Your task to perform on an android device: turn on translation in the chrome app Image 0: 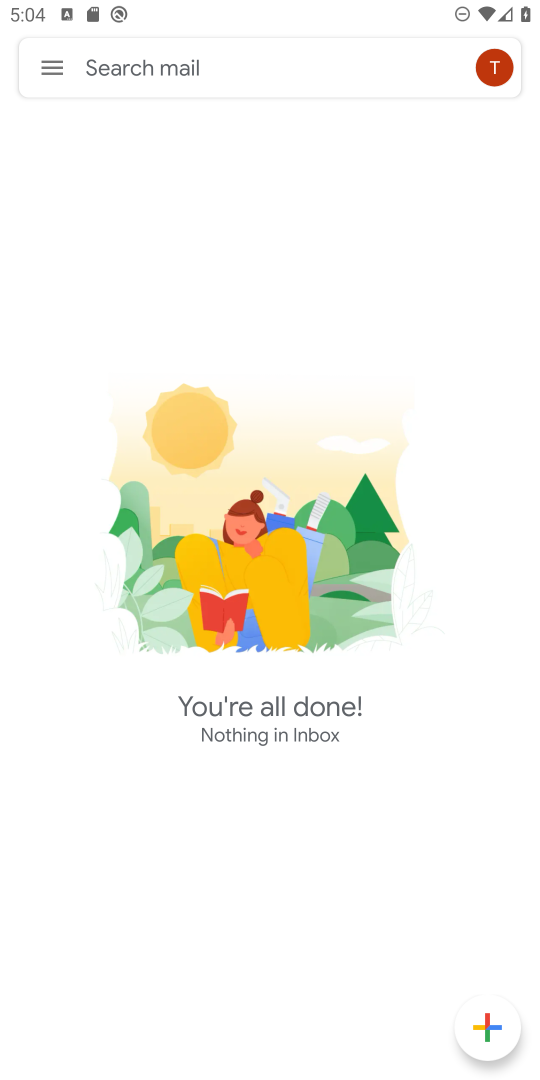
Step 0: press home button
Your task to perform on an android device: turn on translation in the chrome app Image 1: 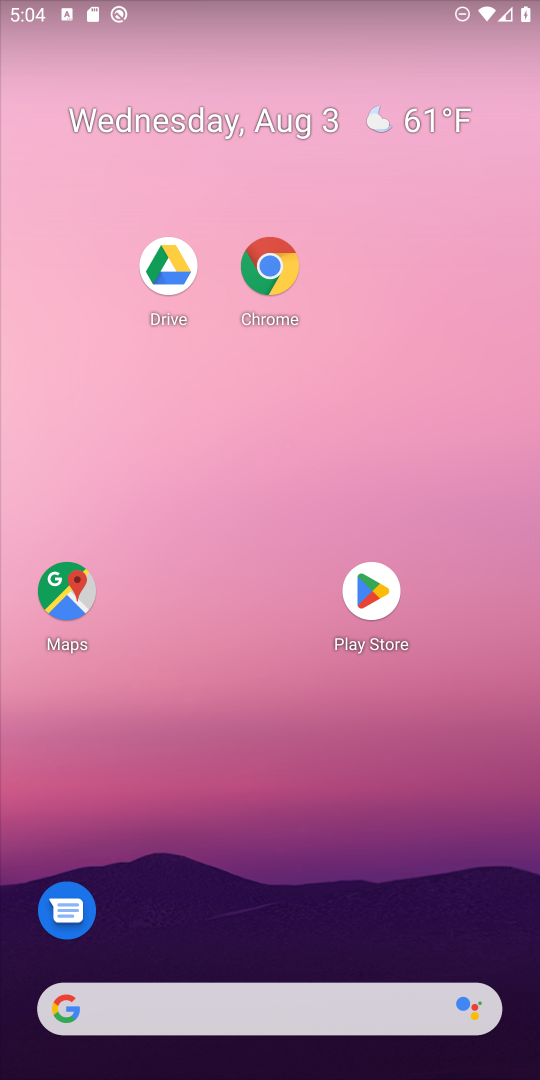
Step 1: drag from (348, 994) to (314, 52)
Your task to perform on an android device: turn on translation in the chrome app Image 2: 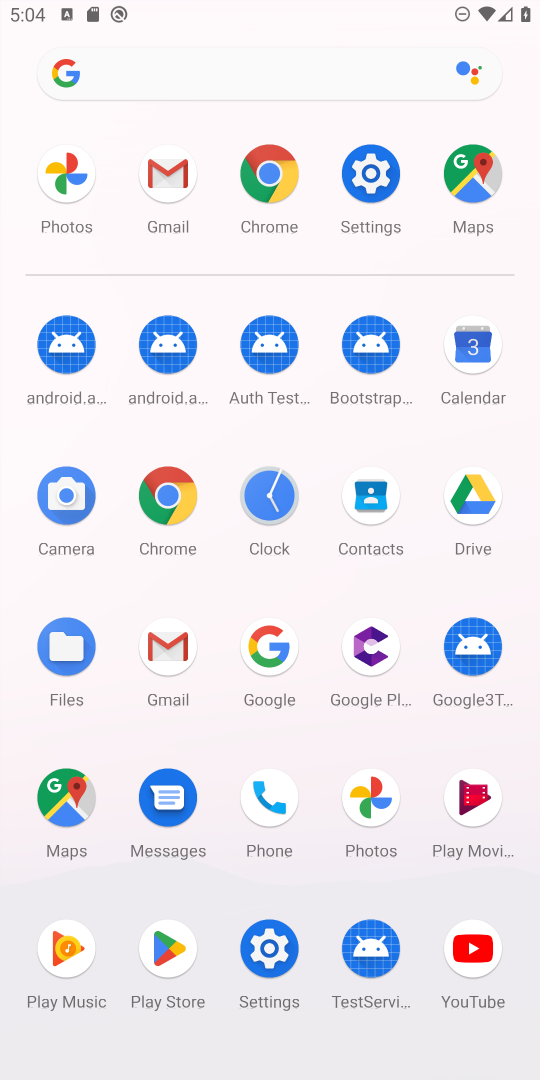
Step 2: click (170, 490)
Your task to perform on an android device: turn on translation in the chrome app Image 3: 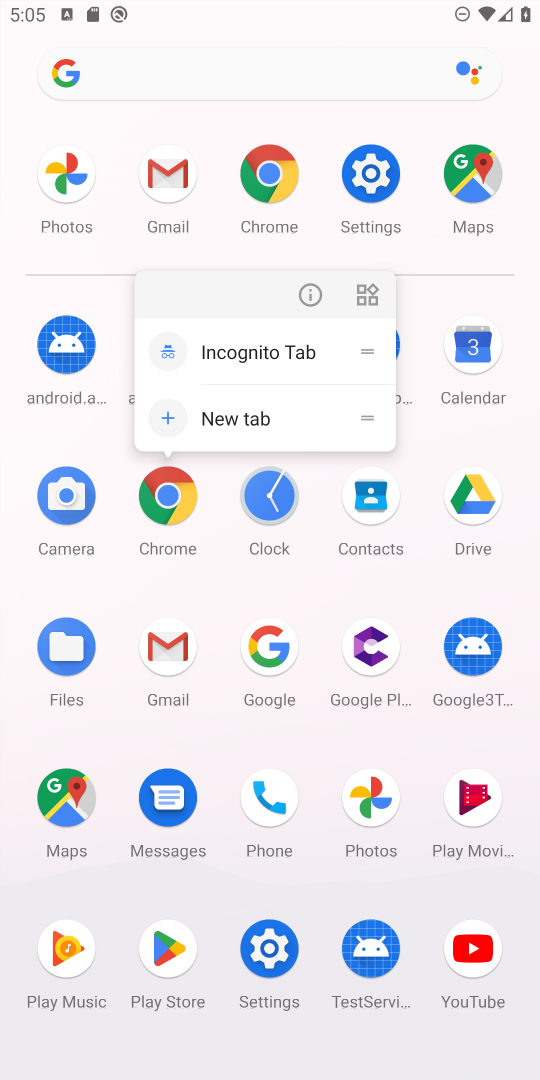
Step 3: click (174, 489)
Your task to perform on an android device: turn on translation in the chrome app Image 4: 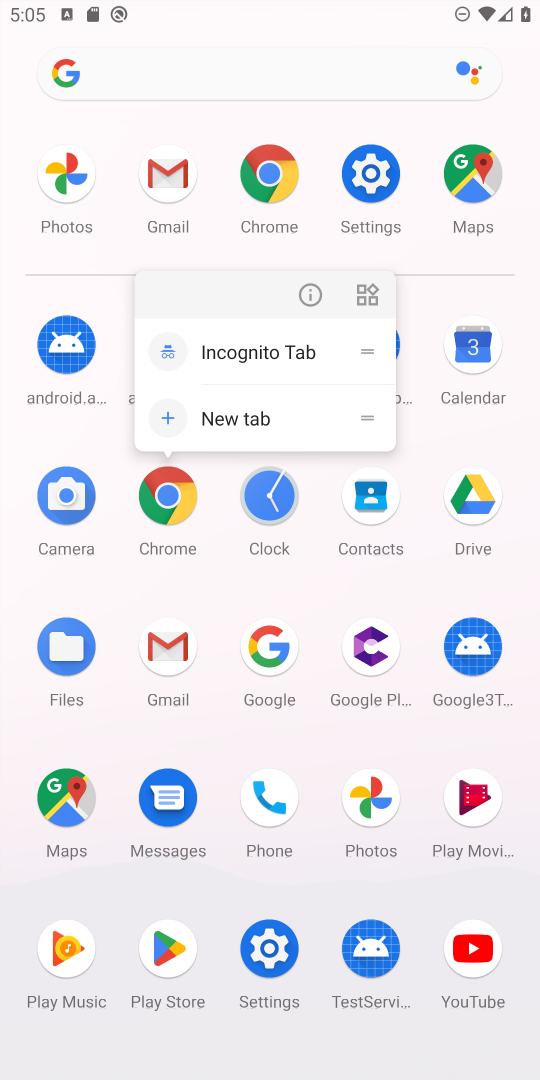
Step 4: click (174, 489)
Your task to perform on an android device: turn on translation in the chrome app Image 5: 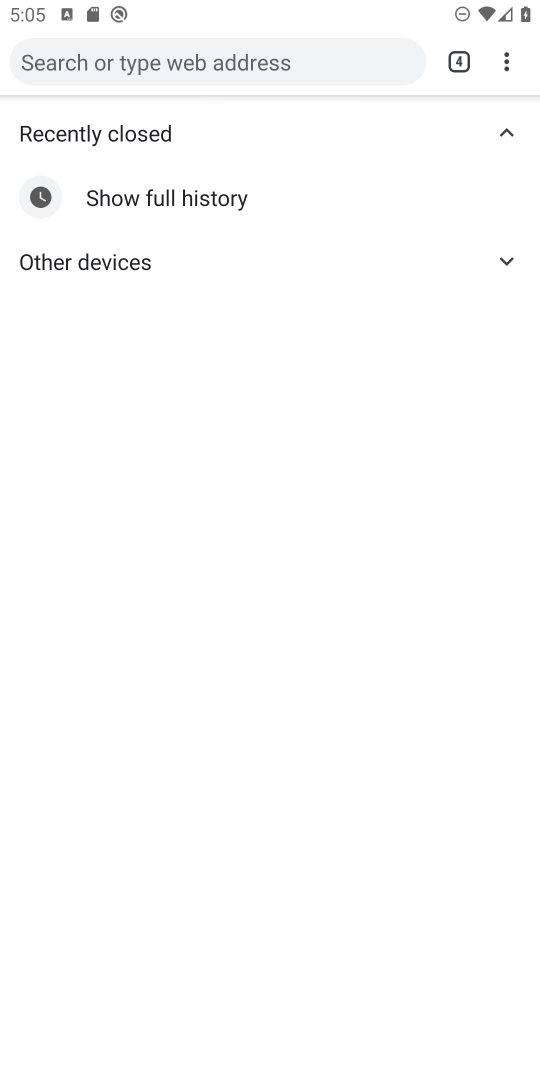
Step 5: drag from (509, 62) to (275, 531)
Your task to perform on an android device: turn on translation in the chrome app Image 6: 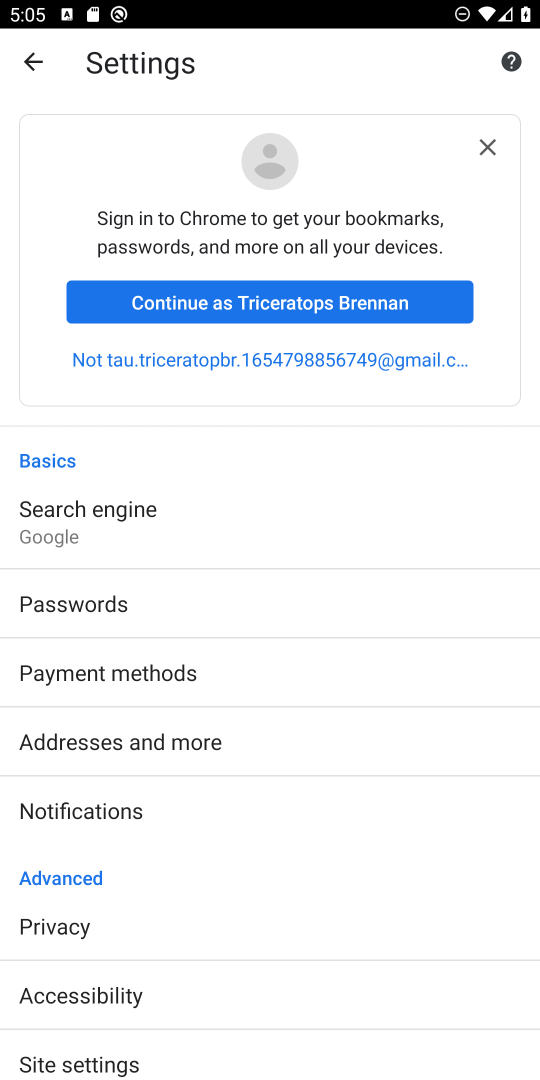
Step 6: drag from (169, 966) to (199, 252)
Your task to perform on an android device: turn on translation in the chrome app Image 7: 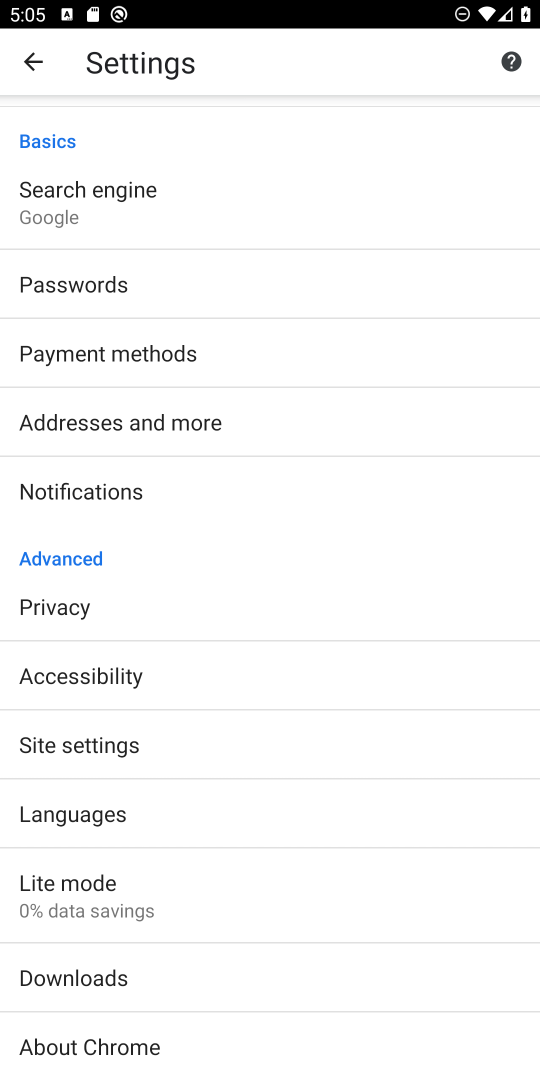
Step 7: click (108, 813)
Your task to perform on an android device: turn on translation in the chrome app Image 8: 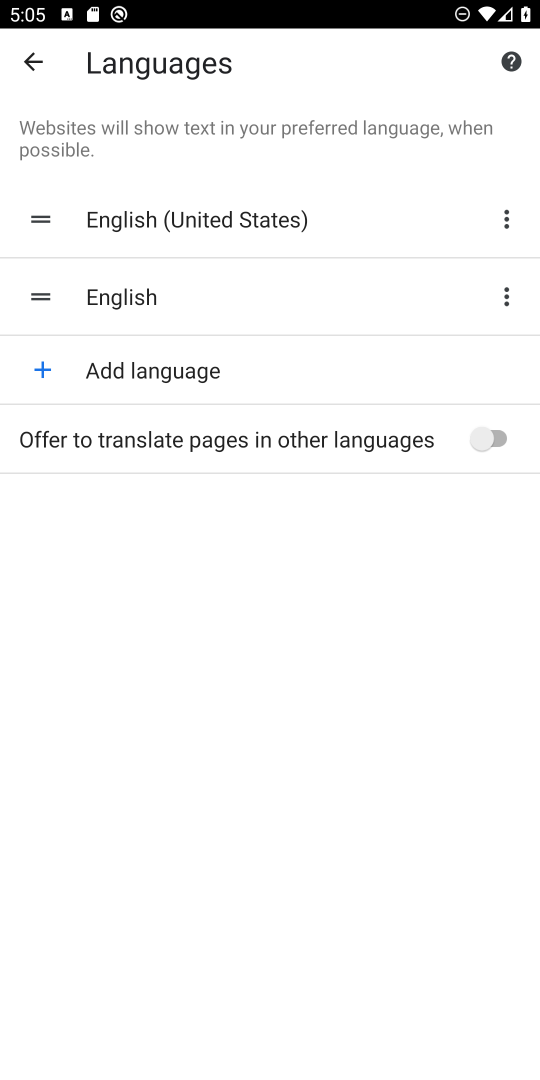
Step 8: click (504, 428)
Your task to perform on an android device: turn on translation in the chrome app Image 9: 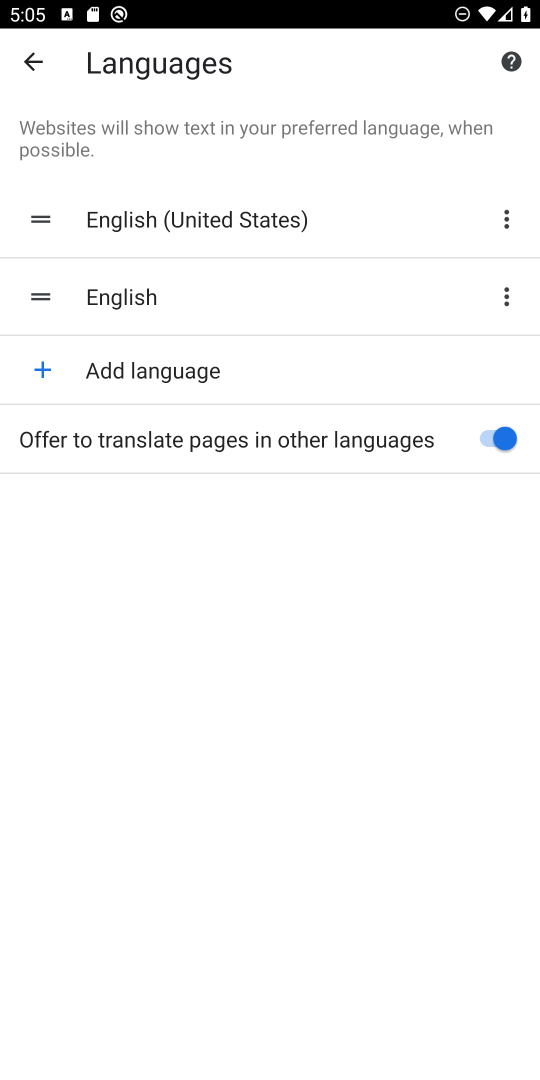
Step 9: task complete